Your task to perform on an android device: Search for vegetarian restaurants on Maps Image 0: 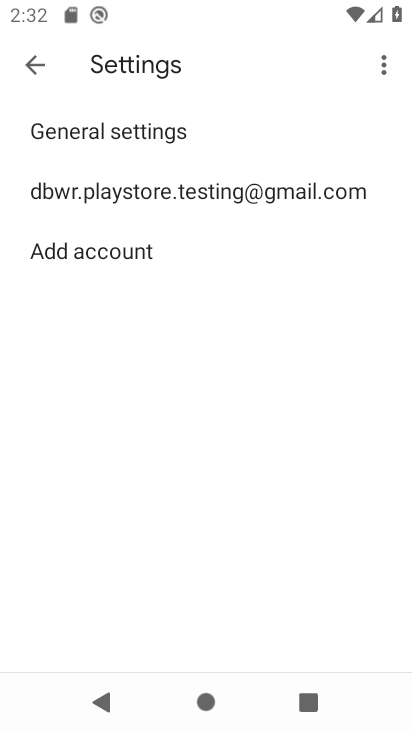
Step 0: press home button
Your task to perform on an android device: Search for vegetarian restaurants on Maps Image 1: 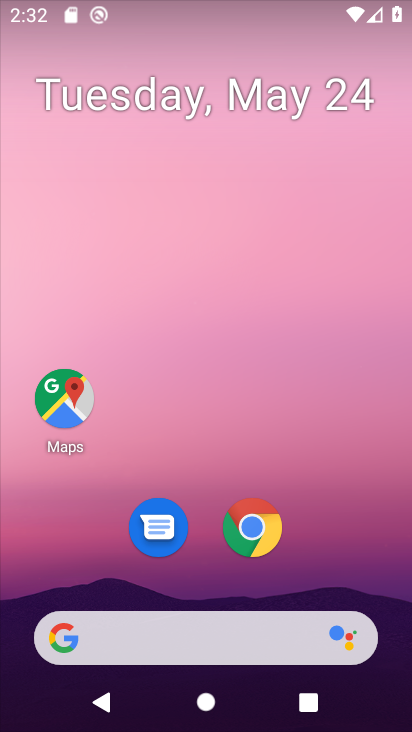
Step 1: click (68, 405)
Your task to perform on an android device: Search for vegetarian restaurants on Maps Image 2: 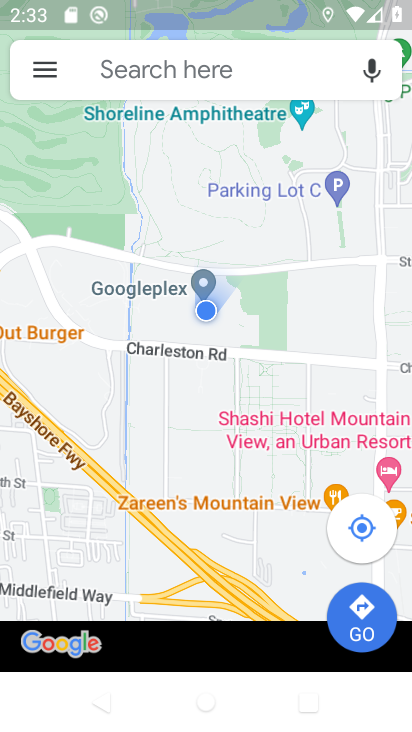
Step 2: click (124, 74)
Your task to perform on an android device: Search for vegetarian restaurants on Maps Image 3: 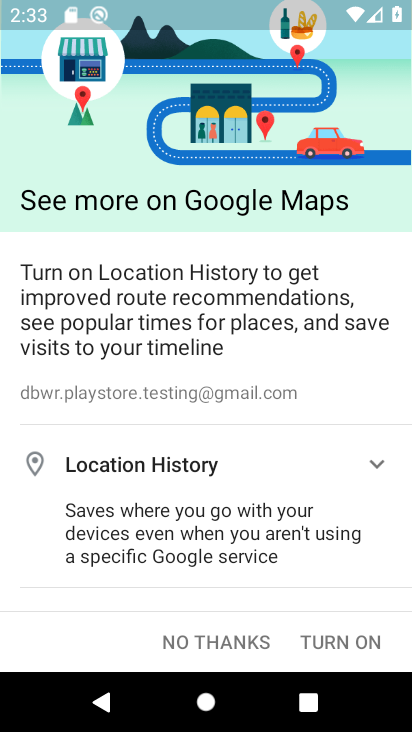
Step 3: click (213, 648)
Your task to perform on an android device: Search for vegetarian restaurants on Maps Image 4: 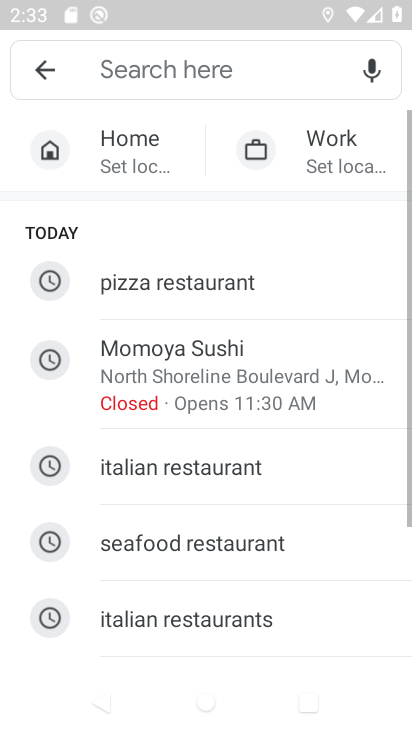
Step 4: click (115, 69)
Your task to perform on an android device: Search for vegetarian restaurants on Maps Image 5: 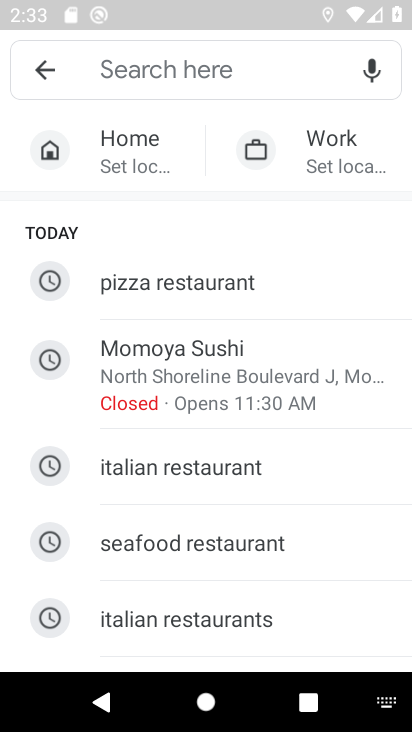
Step 5: type "vegetarian restaurants"
Your task to perform on an android device: Search for vegetarian restaurants on Maps Image 6: 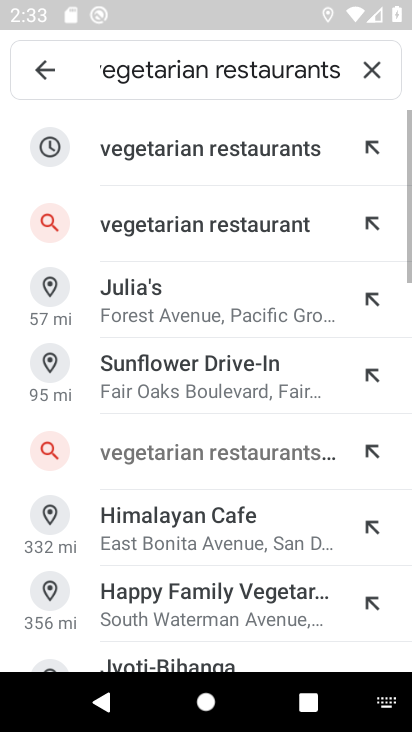
Step 6: click (146, 141)
Your task to perform on an android device: Search for vegetarian restaurants on Maps Image 7: 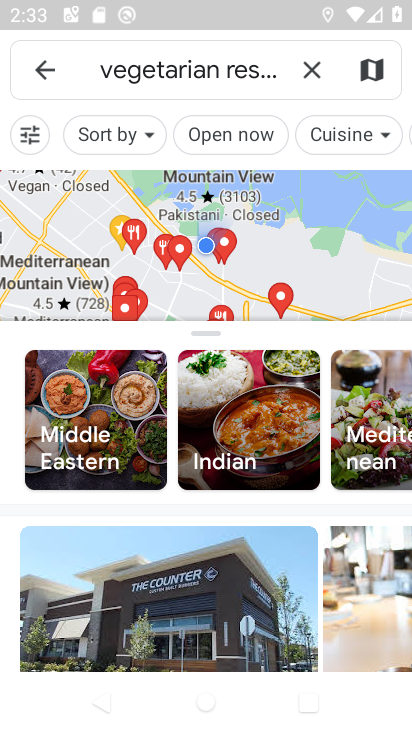
Step 7: task complete